Your task to perform on an android device: Open Wikipedia Image 0: 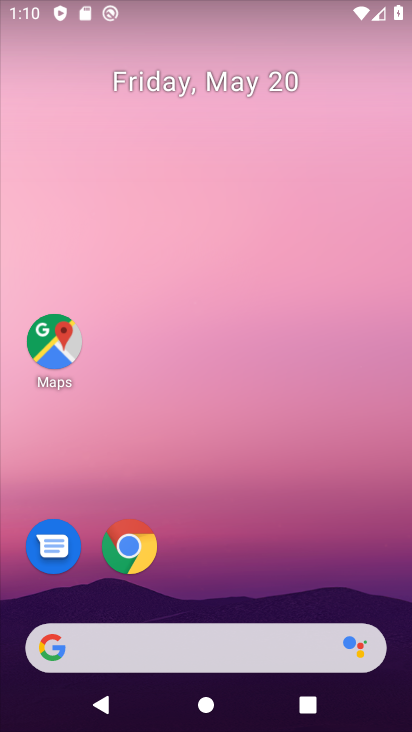
Step 0: press home button
Your task to perform on an android device: Open Wikipedia Image 1: 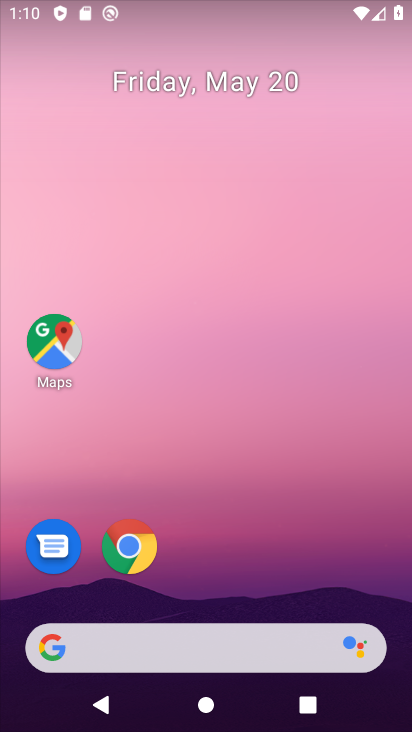
Step 1: drag from (2, 656) to (244, 87)
Your task to perform on an android device: Open Wikipedia Image 2: 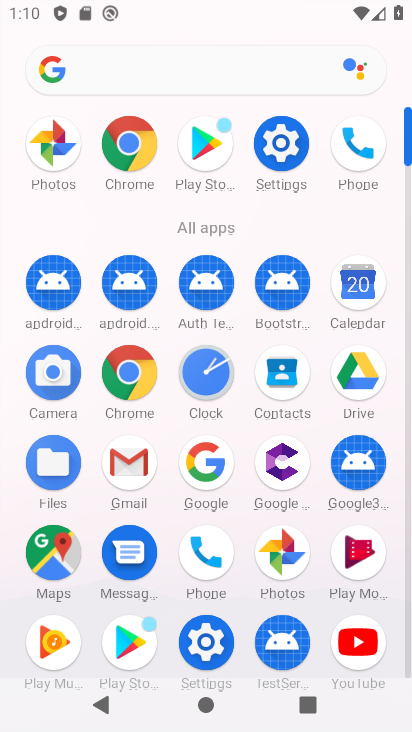
Step 2: click (127, 135)
Your task to perform on an android device: Open Wikipedia Image 3: 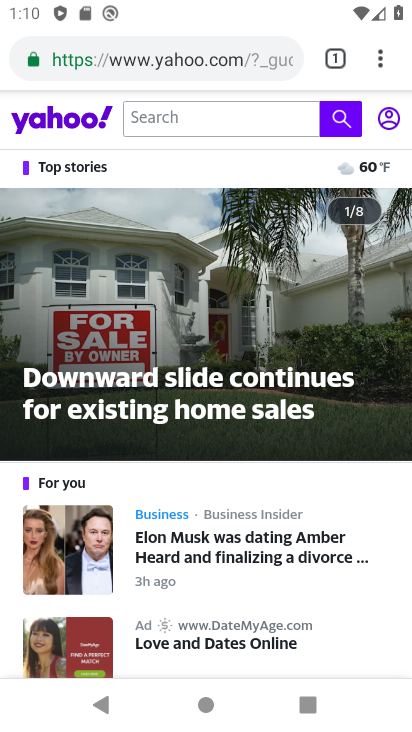
Step 3: click (333, 61)
Your task to perform on an android device: Open Wikipedia Image 4: 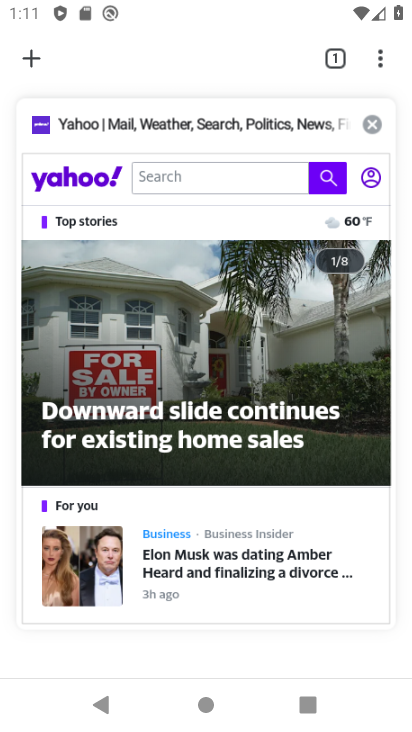
Step 4: click (370, 129)
Your task to perform on an android device: Open Wikipedia Image 5: 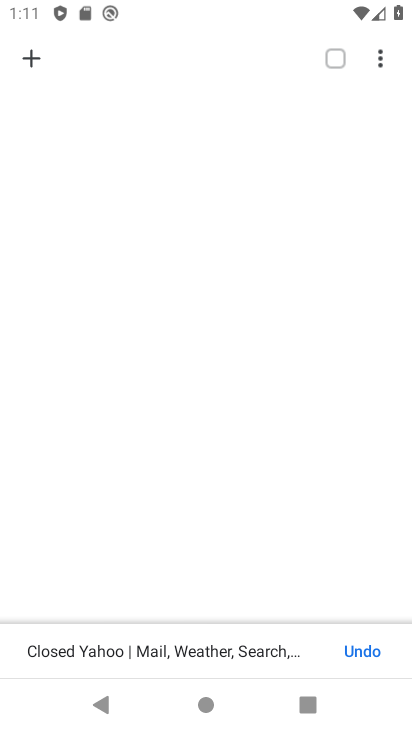
Step 5: click (29, 58)
Your task to perform on an android device: Open Wikipedia Image 6: 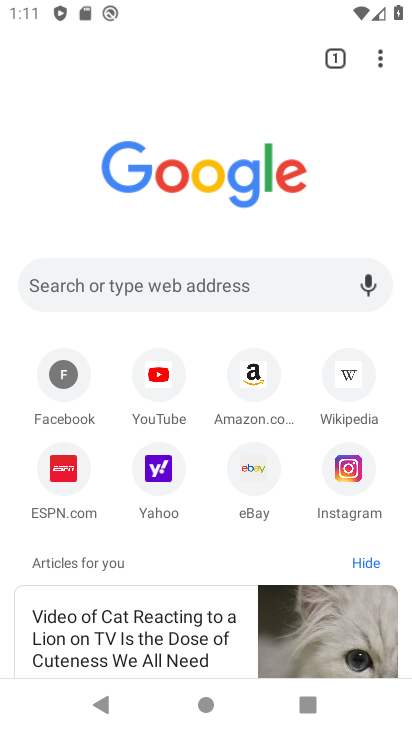
Step 6: click (347, 372)
Your task to perform on an android device: Open Wikipedia Image 7: 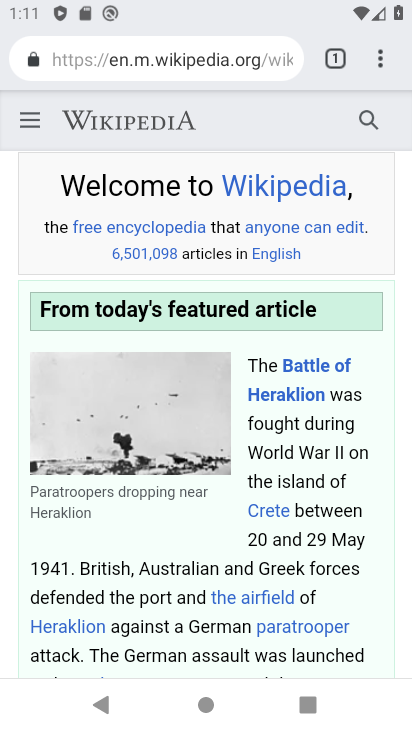
Step 7: task complete